Your task to perform on an android device: Open calendar and show me the fourth week of next month Image 0: 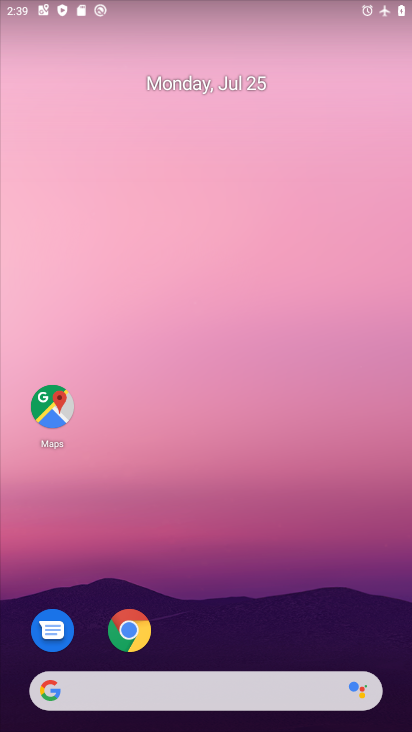
Step 0: drag from (269, 633) to (267, 97)
Your task to perform on an android device: Open calendar and show me the fourth week of next month Image 1: 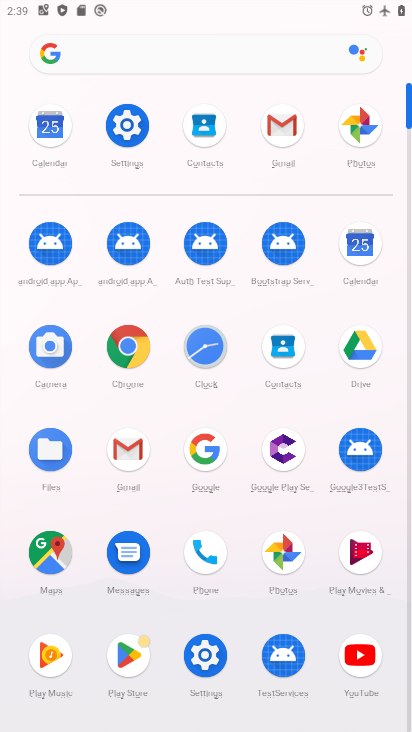
Step 1: click (36, 149)
Your task to perform on an android device: Open calendar and show me the fourth week of next month Image 2: 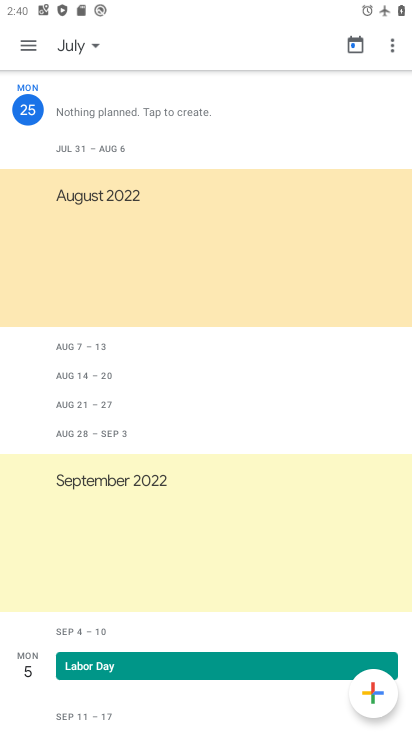
Step 2: task complete